Your task to perform on an android device: Go to network settings Image 0: 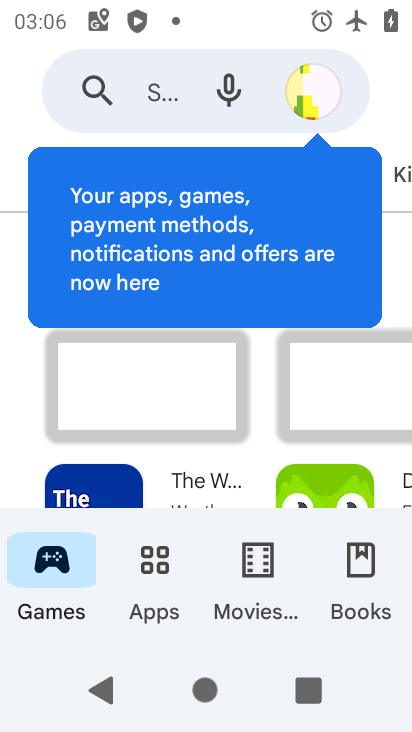
Step 0: press home button
Your task to perform on an android device: Go to network settings Image 1: 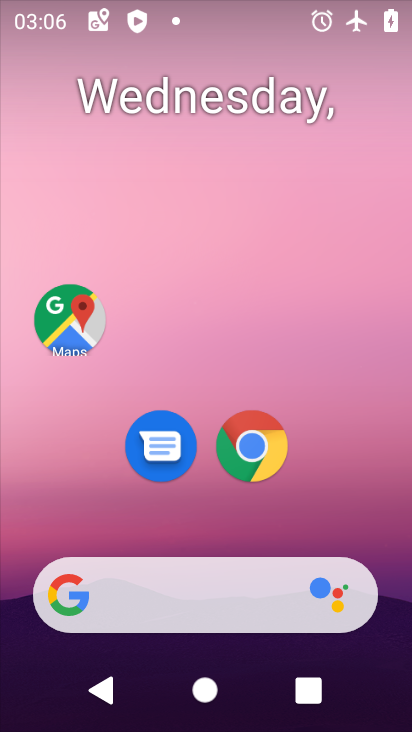
Step 1: drag from (221, 529) to (223, 150)
Your task to perform on an android device: Go to network settings Image 2: 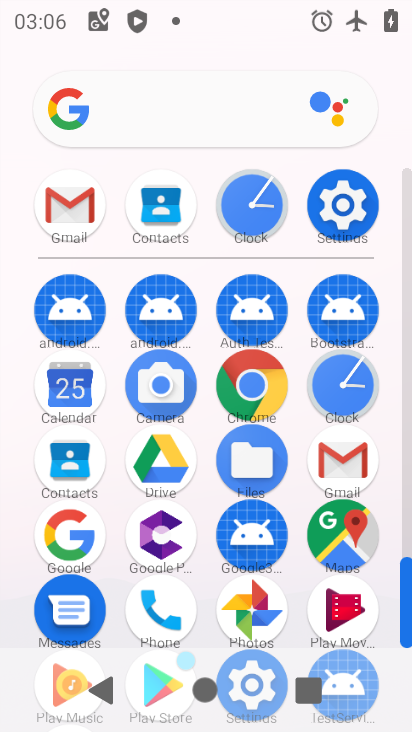
Step 2: click (345, 210)
Your task to perform on an android device: Go to network settings Image 3: 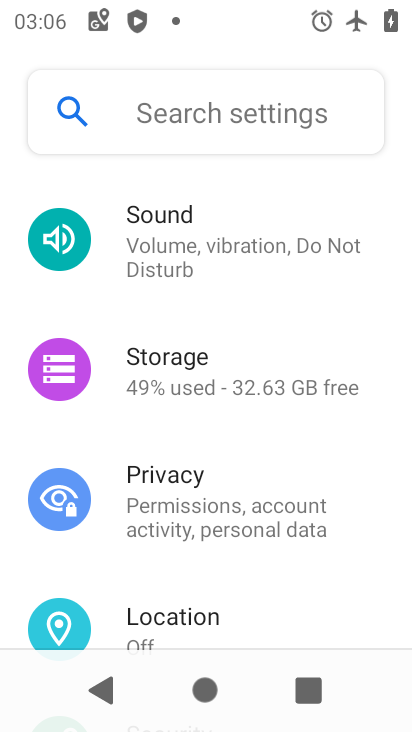
Step 3: drag from (206, 286) to (215, 531)
Your task to perform on an android device: Go to network settings Image 4: 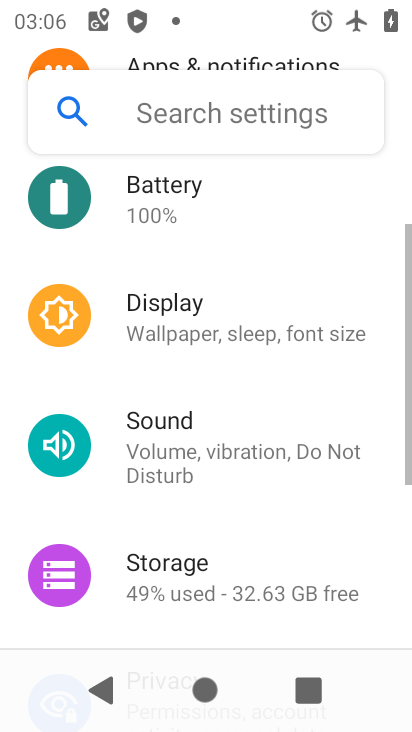
Step 4: drag from (210, 292) to (210, 491)
Your task to perform on an android device: Go to network settings Image 5: 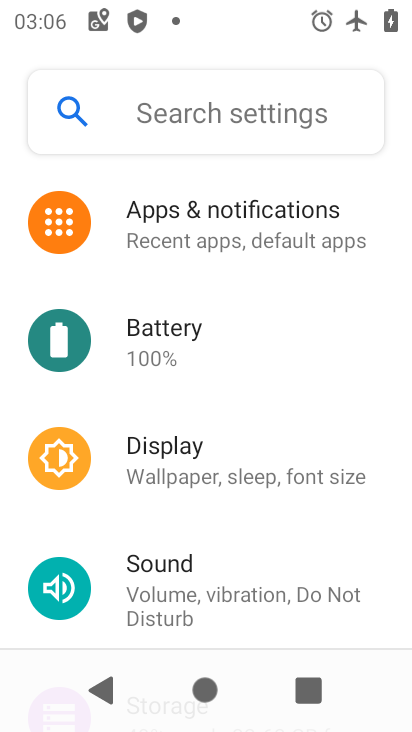
Step 5: drag from (252, 248) to (267, 474)
Your task to perform on an android device: Go to network settings Image 6: 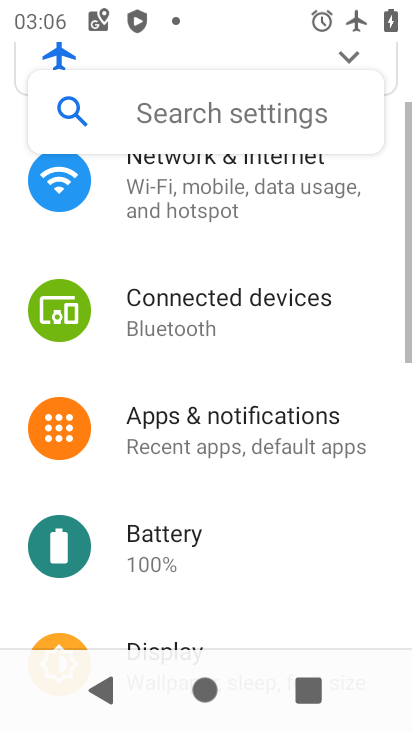
Step 6: drag from (228, 332) to (240, 464)
Your task to perform on an android device: Go to network settings Image 7: 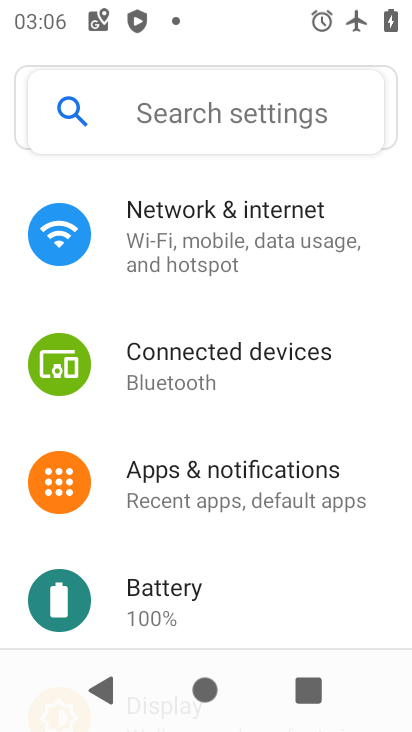
Step 7: click (227, 232)
Your task to perform on an android device: Go to network settings Image 8: 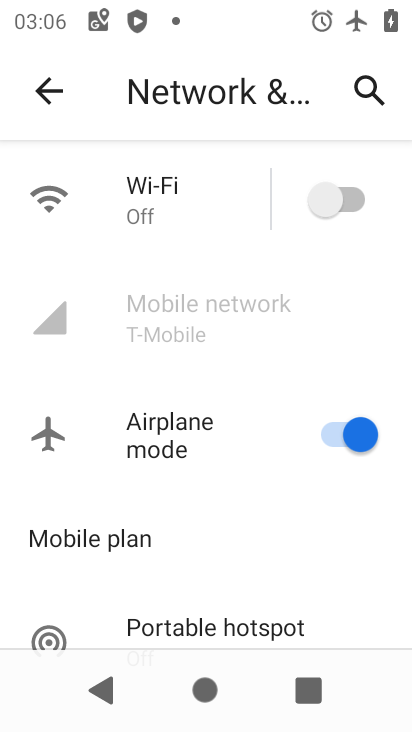
Step 8: click (203, 292)
Your task to perform on an android device: Go to network settings Image 9: 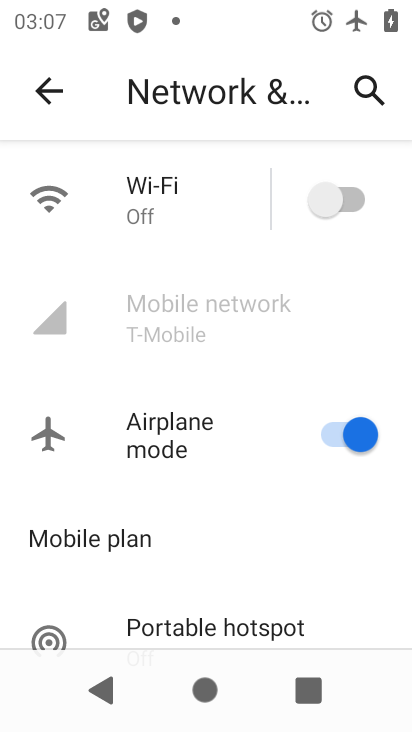
Step 9: click (166, 342)
Your task to perform on an android device: Go to network settings Image 10: 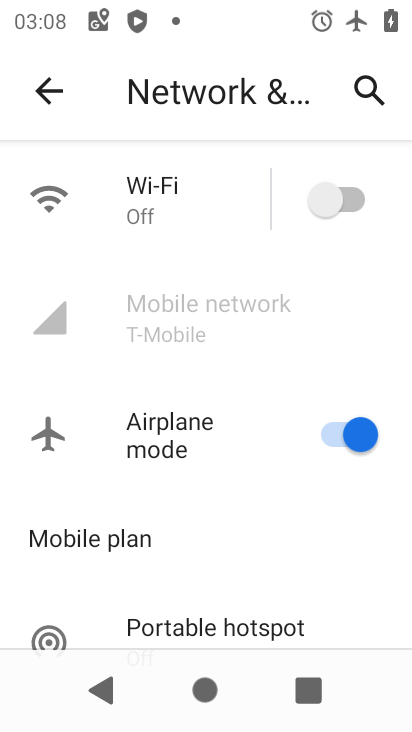
Step 10: task complete